Your task to perform on an android device: Open ESPN.com Image 0: 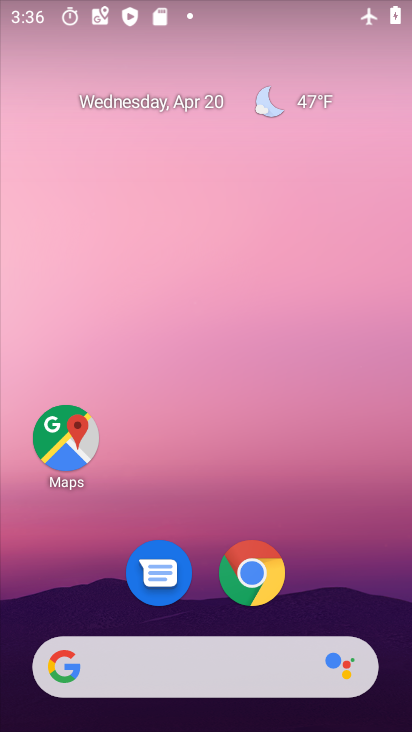
Step 0: drag from (202, 725) to (208, 116)
Your task to perform on an android device: Open ESPN.com Image 1: 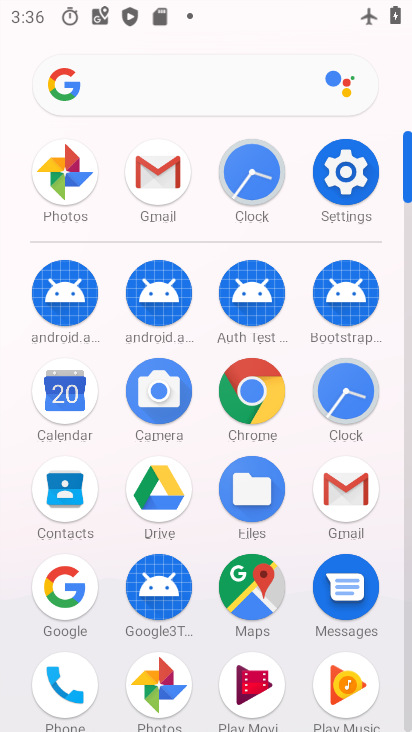
Step 1: click (251, 391)
Your task to perform on an android device: Open ESPN.com Image 2: 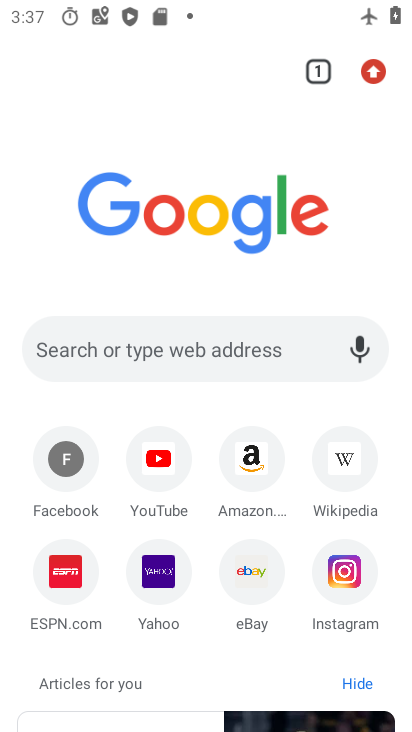
Step 2: click (69, 566)
Your task to perform on an android device: Open ESPN.com Image 3: 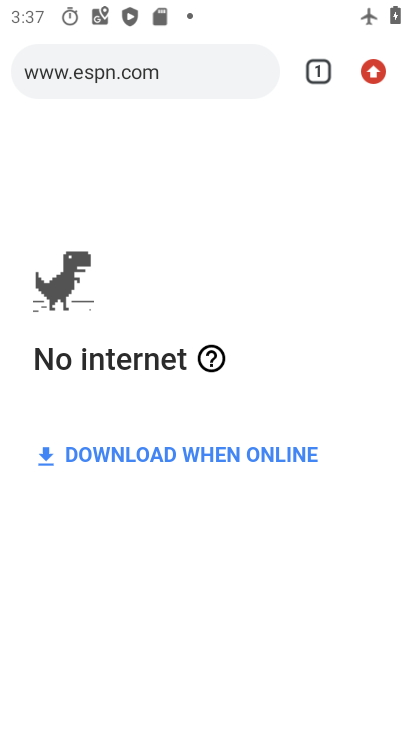
Step 3: task complete